Your task to perform on an android device: check google app version Image 0: 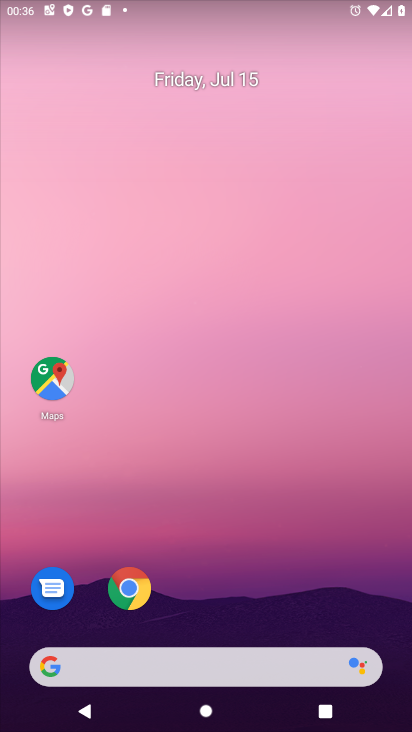
Step 0: press home button
Your task to perform on an android device: check google app version Image 1: 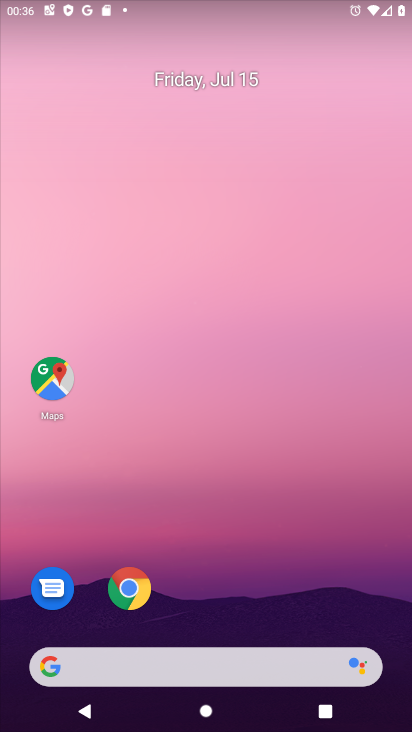
Step 1: drag from (132, 678) to (318, 122)
Your task to perform on an android device: check google app version Image 2: 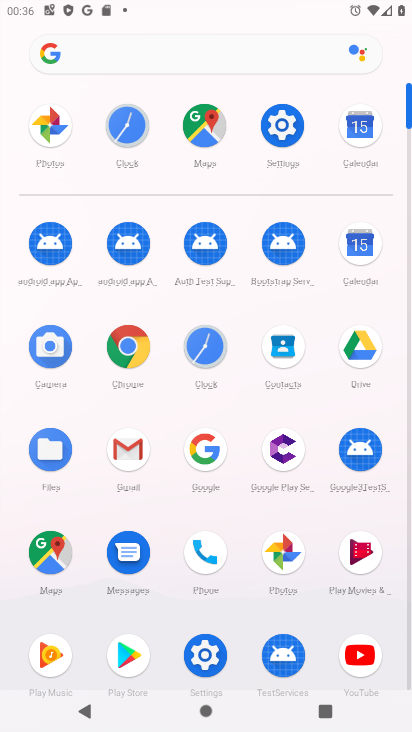
Step 2: click (210, 443)
Your task to perform on an android device: check google app version Image 3: 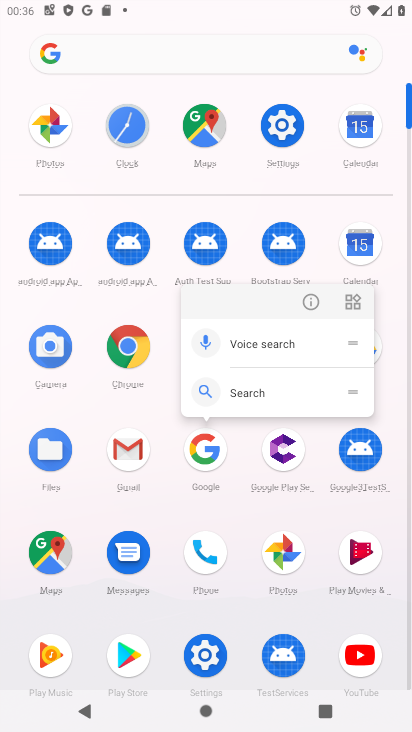
Step 3: click (309, 301)
Your task to perform on an android device: check google app version Image 4: 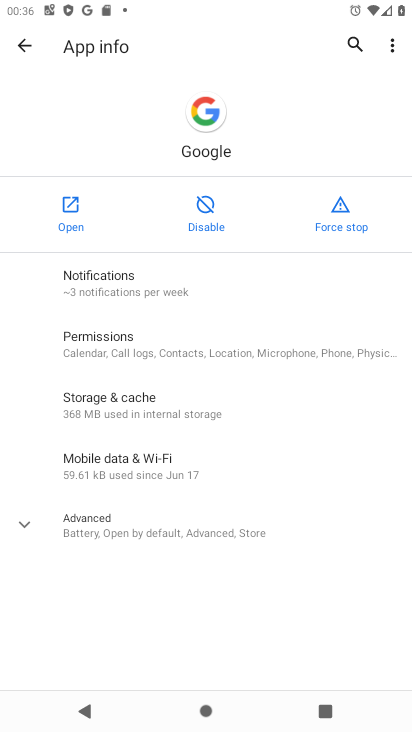
Step 4: click (117, 528)
Your task to perform on an android device: check google app version Image 5: 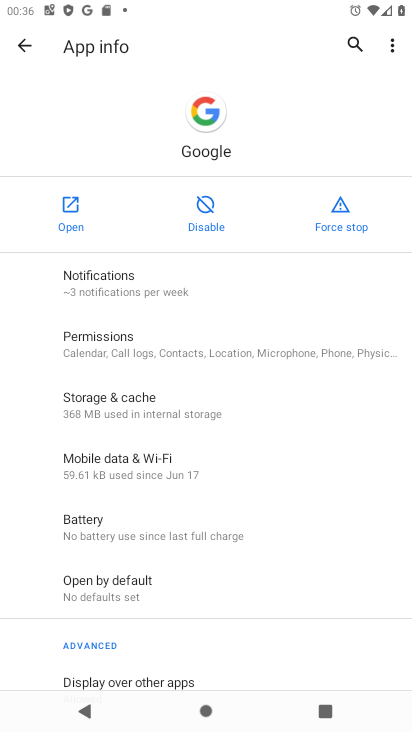
Step 5: task complete